Your task to perform on an android device: turn on sleep mode Image 0: 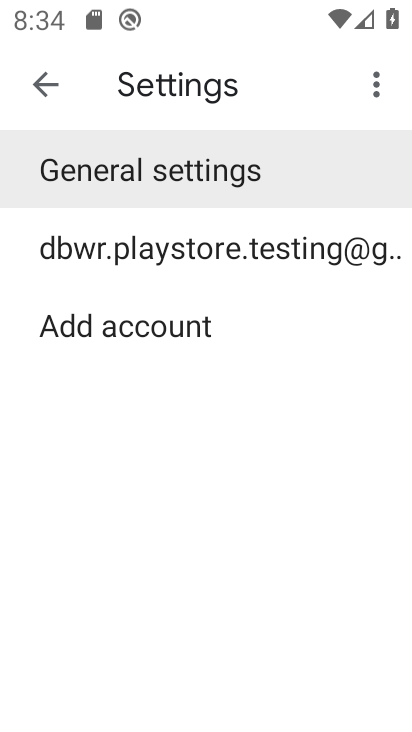
Step 0: press home button
Your task to perform on an android device: turn on sleep mode Image 1: 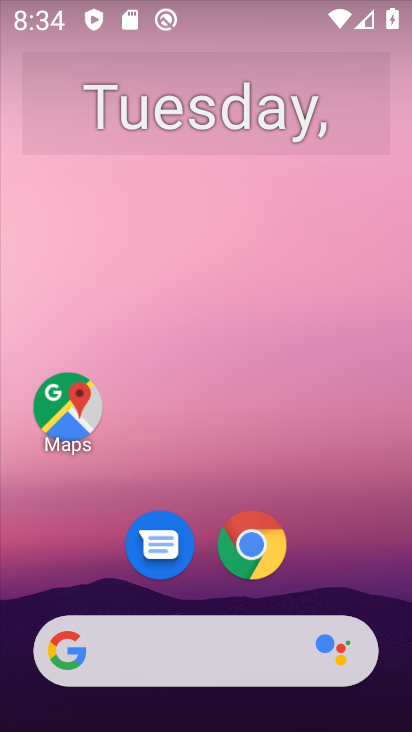
Step 1: drag from (368, 573) to (338, 273)
Your task to perform on an android device: turn on sleep mode Image 2: 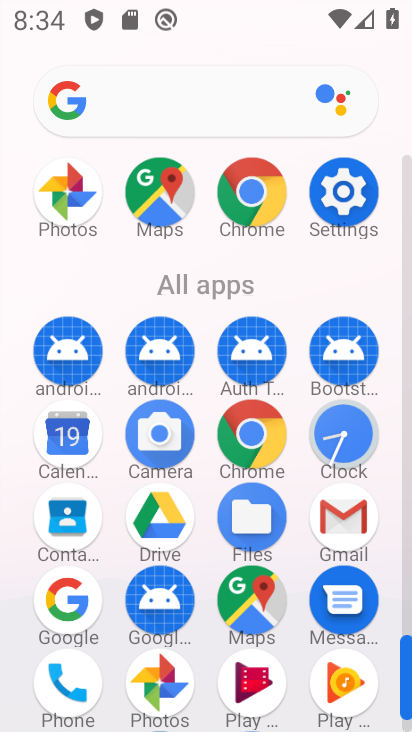
Step 2: click (358, 203)
Your task to perform on an android device: turn on sleep mode Image 3: 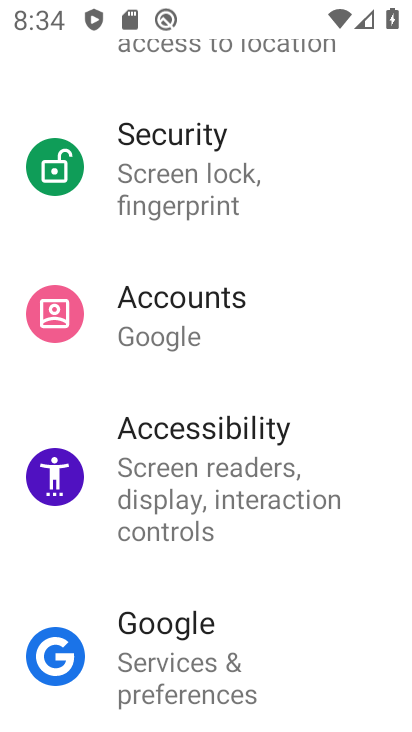
Step 3: drag from (357, 570) to (338, 728)
Your task to perform on an android device: turn on sleep mode Image 4: 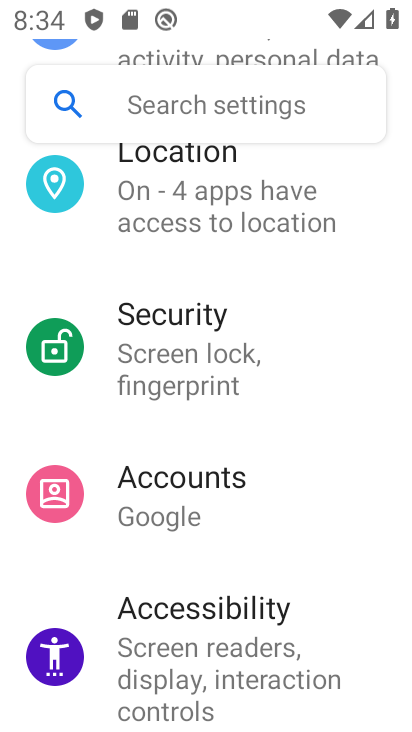
Step 4: drag from (224, 269) to (267, 653)
Your task to perform on an android device: turn on sleep mode Image 5: 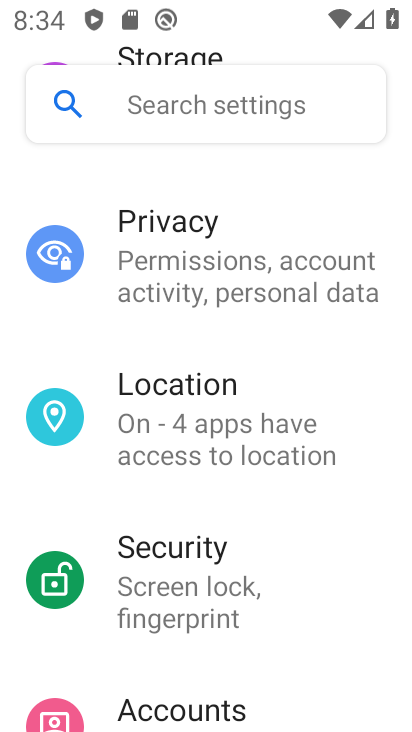
Step 5: drag from (260, 180) to (323, 608)
Your task to perform on an android device: turn on sleep mode Image 6: 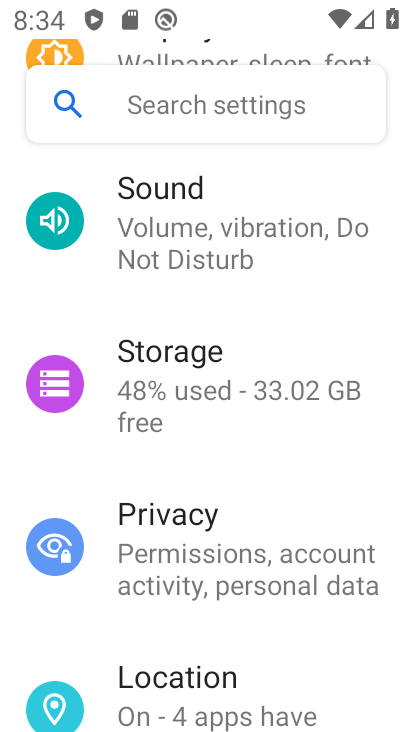
Step 6: drag from (288, 154) to (313, 650)
Your task to perform on an android device: turn on sleep mode Image 7: 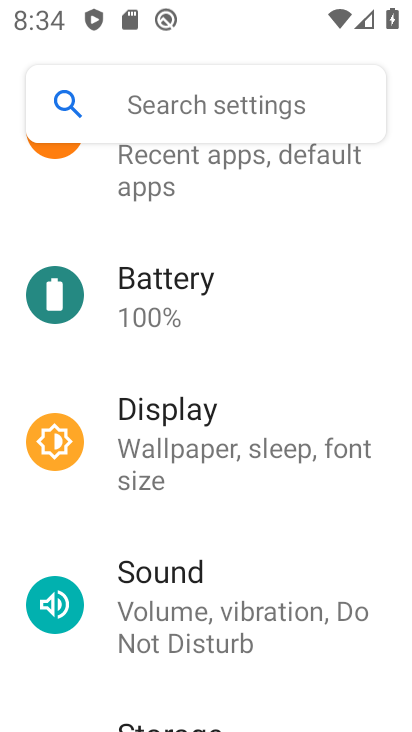
Step 7: click (281, 473)
Your task to perform on an android device: turn on sleep mode Image 8: 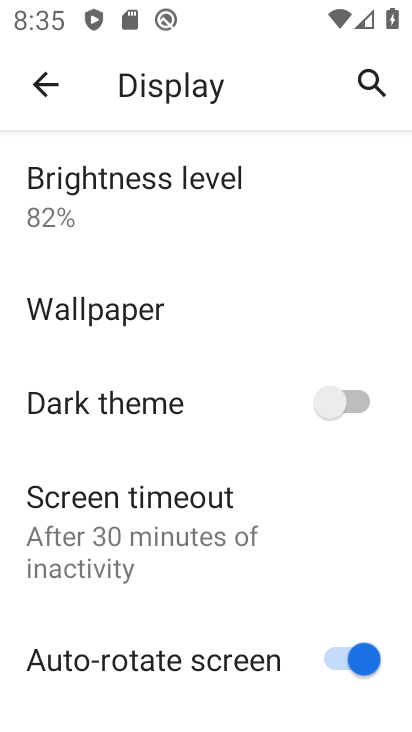
Step 8: task complete